Your task to perform on an android device: delete a single message in the gmail app Image 0: 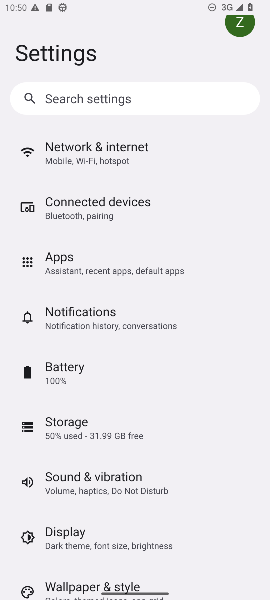
Step 0: press home button
Your task to perform on an android device: delete a single message in the gmail app Image 1: 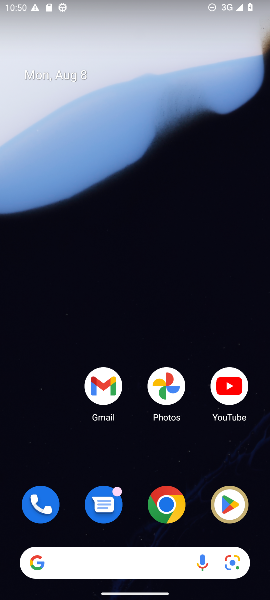
Step 1: drag from (142, 455) to (198, 43)
Your task to perform on an android device: delete a single message in the gmail app Image 2: 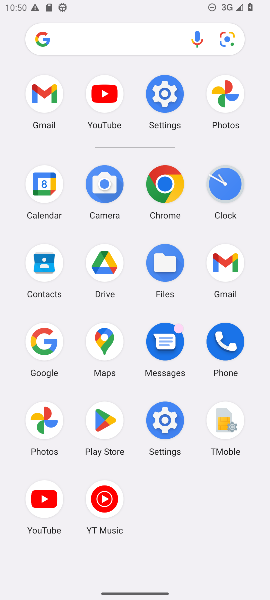
Step 2: click (234, 278)
Your task to perform on an android device: delete a single message in the gmail app Image 3: 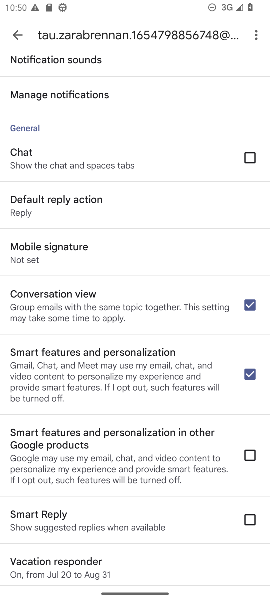
Step 3: click (18, 34)
Your task to perform on an android device: delete a single message in the gmail app Image 4: 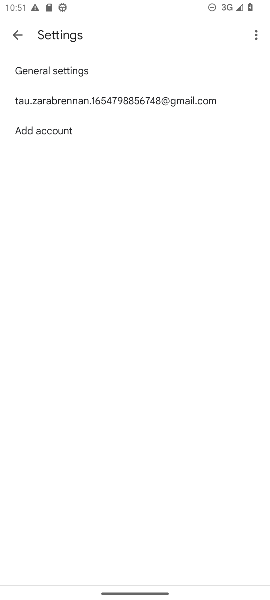
Step 4: click (13, 26)
Your task to perform on an android device: delete a single message in the gmail app Image 5: 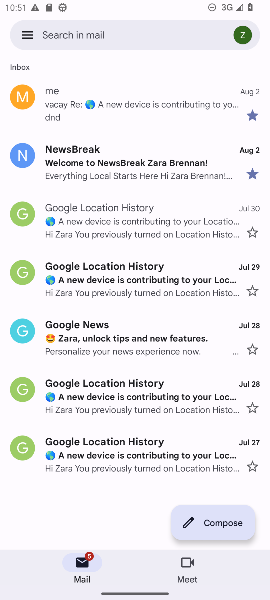
Step 5: click (22, 340)
Your task to perform on an android device: delete a single message in the gmail app Image 6: 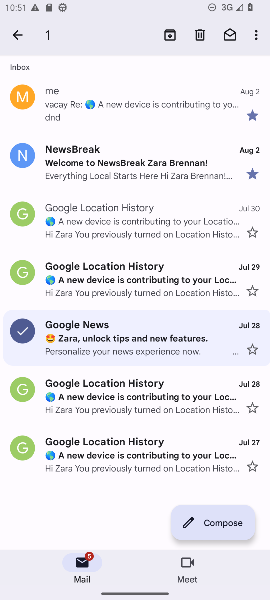
Step 6: click (201, 34)
Your task to perform on an android device: delete a single message in the gmail app Image 7: 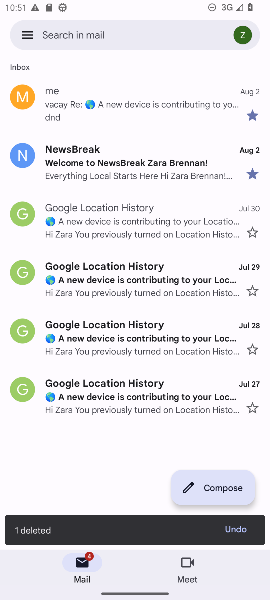
Step 7: task complete